Your task to perform on an android device: Check the weather Image 0: 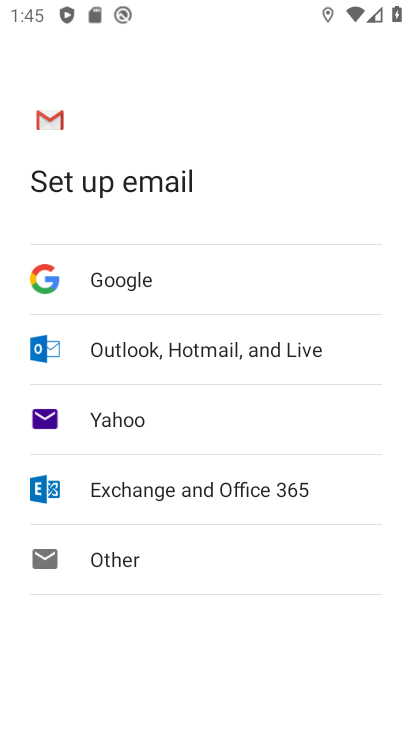
Step 0: press home button
Your task to perform on an android device: Check the weather Image 1: 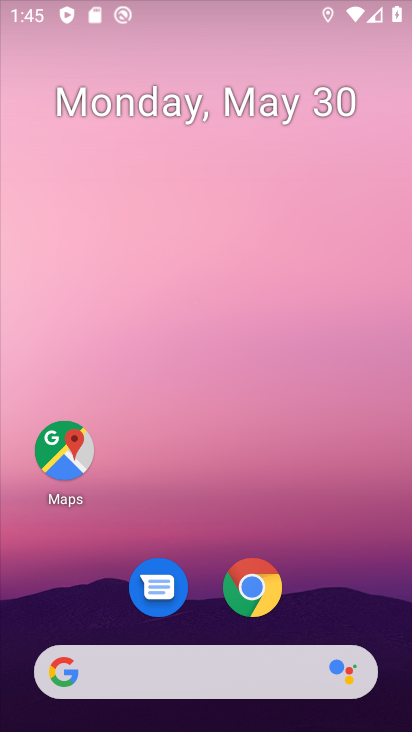
Step 1: click (162, 665)
Your task to perform on an android device: Check the weather Image 2: 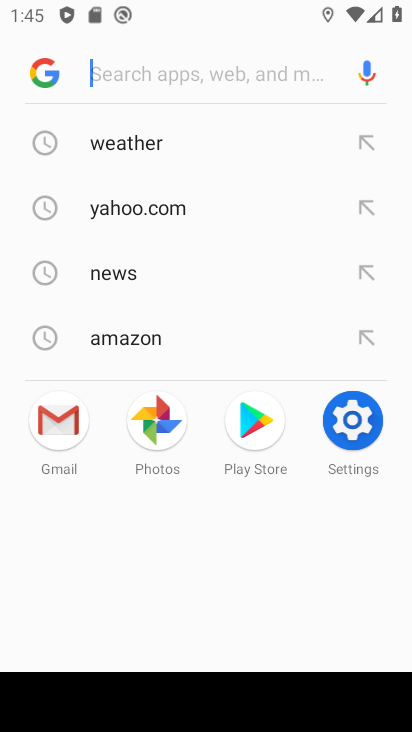
Step 2: click (127, 148)
Your task to perform on an android device: Check the weather Image 3: 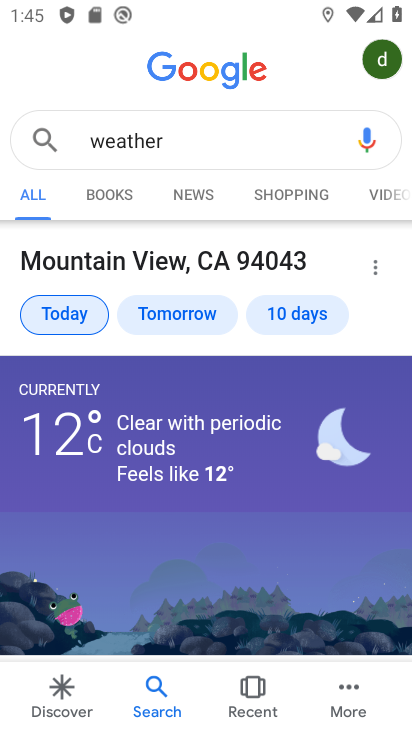
Step 3: task complete